Your task to perform on an android device: Check the news Image 0: 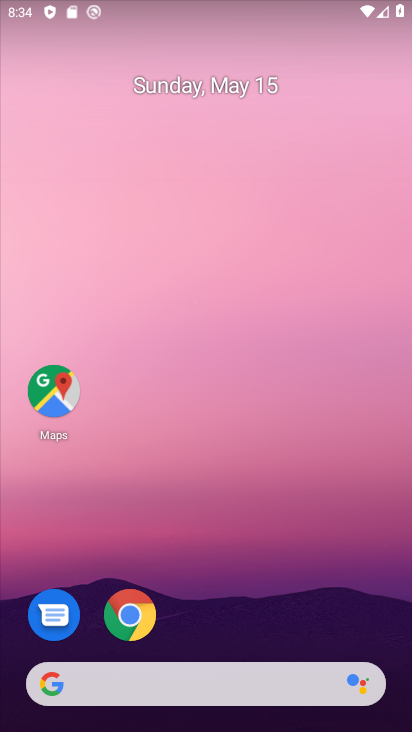
Step 0: drag from (255, 500) to (238, 5)
Your task to perform on an android device: Check the news Image 1: 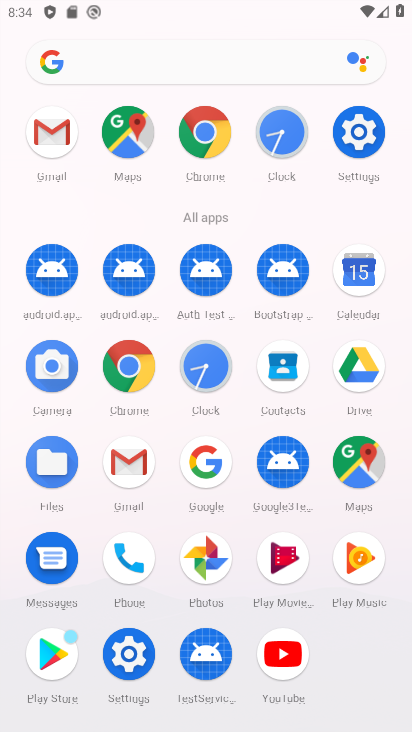
Step 1: drag from (7, 539) to (0, 243)
Your task to perform on an android device: Check the news Image 2: 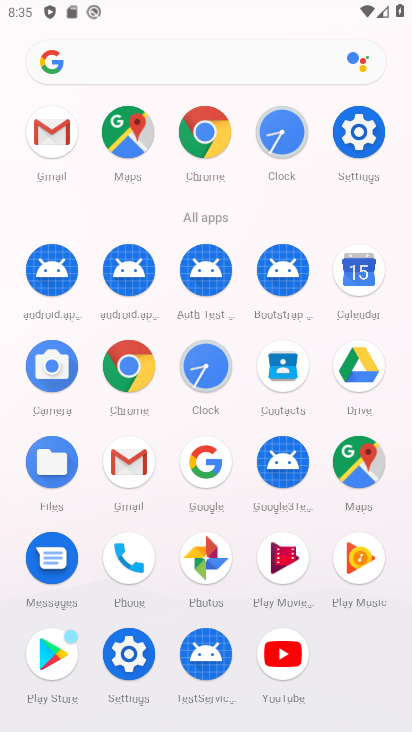
Step 2: click (130, 366)
Your task to perform on an android device: Check the news Image 3: 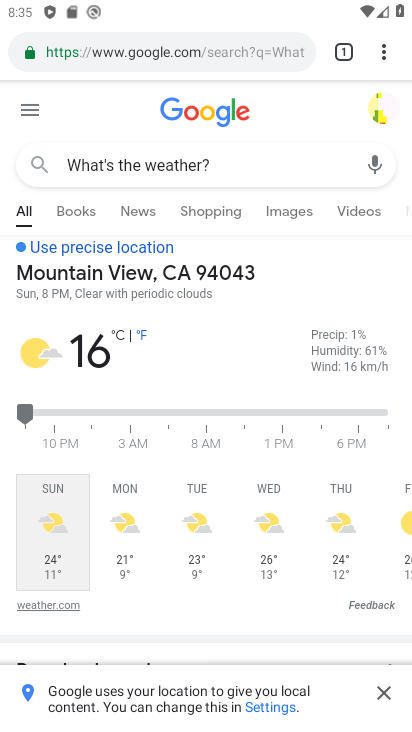
Step 3: drag from (221, 163) to (100, 163)
Your task to perform on an android device: Check the news Image 4: 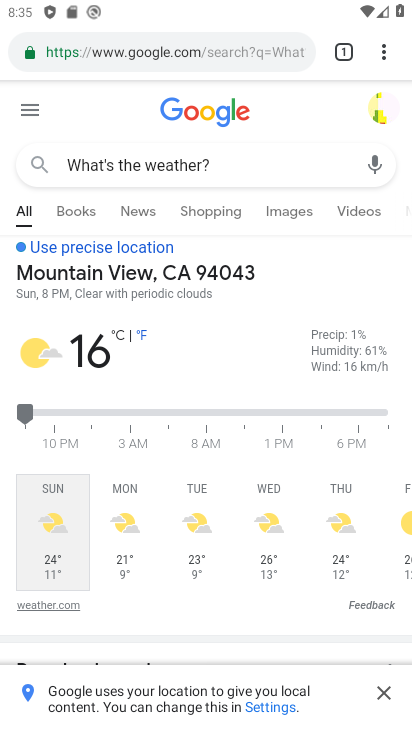
Step 4: click (146, 48)
Your task to perform on an android device: Check the news Image 5: 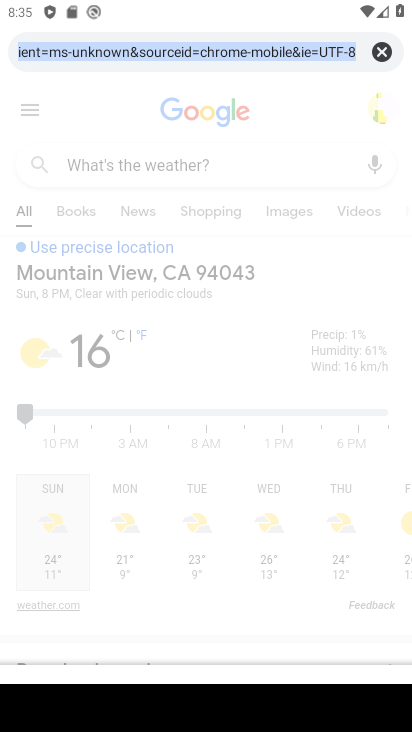
Step 5: click (382, 46)
Your task to perform on an android device: Check the news Image 6: 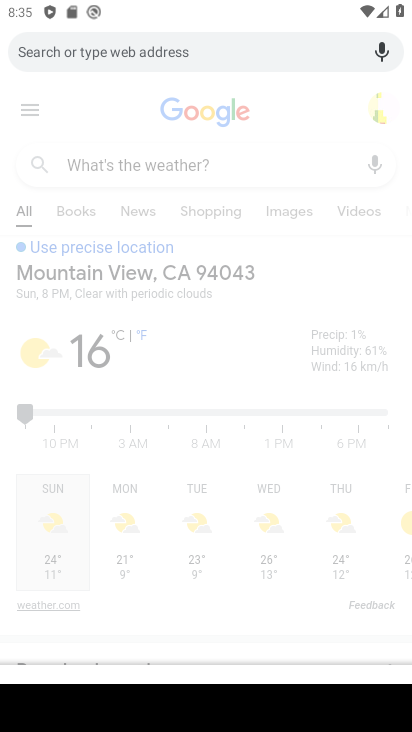
Step 6: type "Check the news"
Your task to perform on an android device: Check the news Image 7: 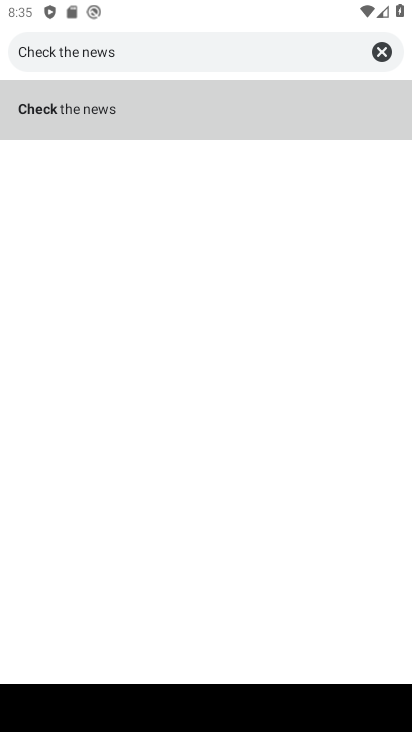
Step 7: click (85, 106)
Your task to perform on an android device: Check the news Image 8: 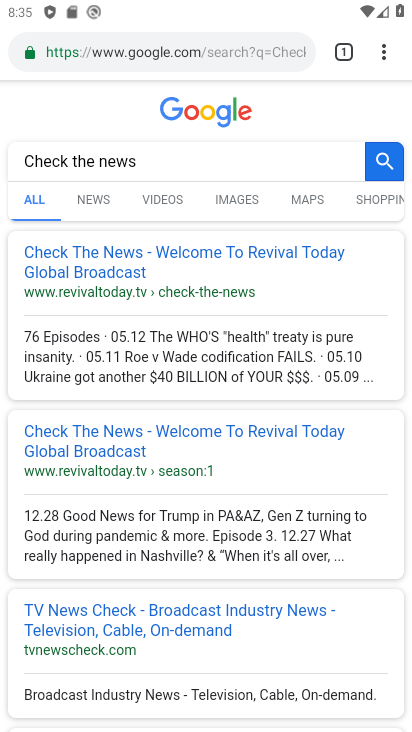
Step 8: click (103, 191)
Your task to perform on an android device: Check the news Image 9: 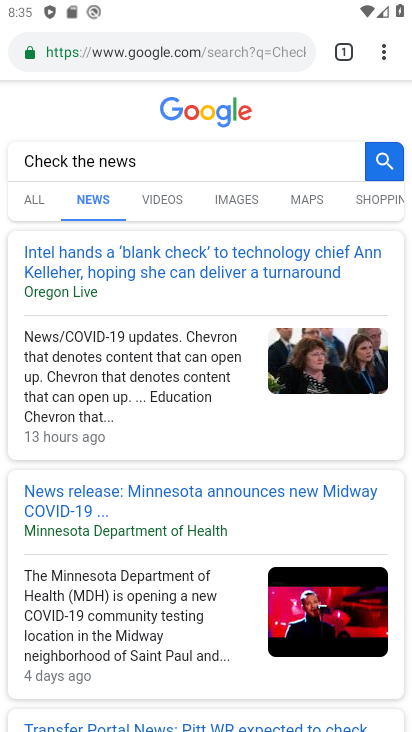
Step 9: task complete